Your task to perform on an android device: Open Yahoo.com Image 0: 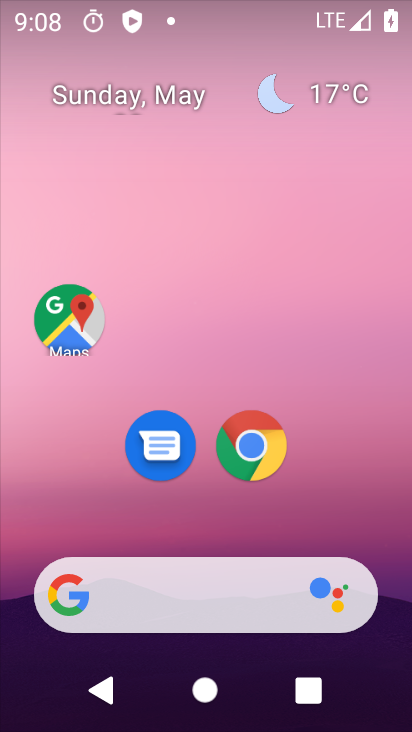
Step 0: drag from (384, 8) to (291, 12)
Your task to perform on an android device: Open Yahoo.com Image 1: 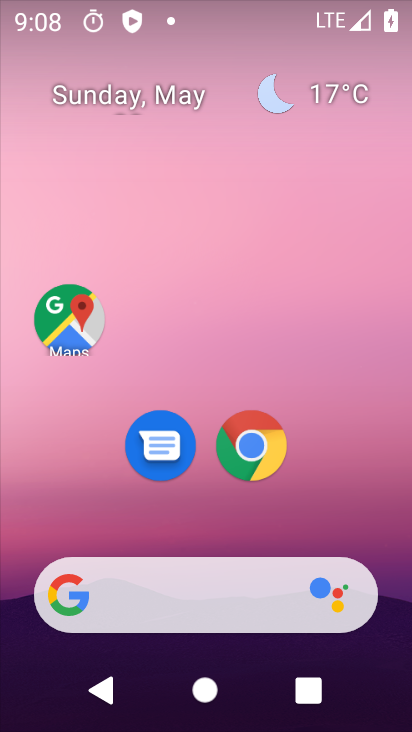
Step 1: drag from (227, 530) to (221, 120)
Your task to perform on an android device: Open Yahoo.com Image 2: 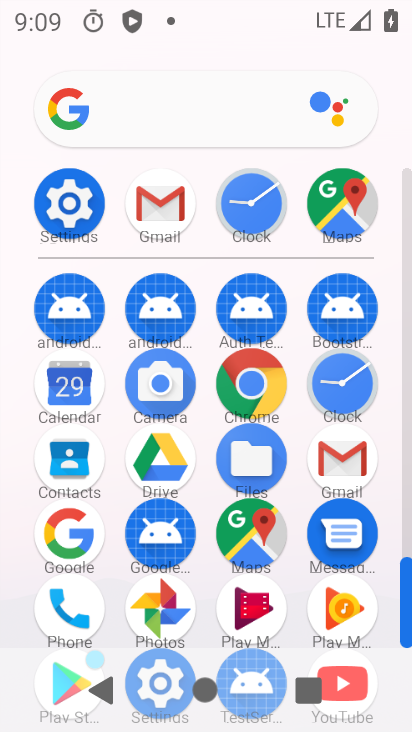
Step 2: click (154, 124)
Your task to perform on an android device: Open Yahoo.com Image 3: 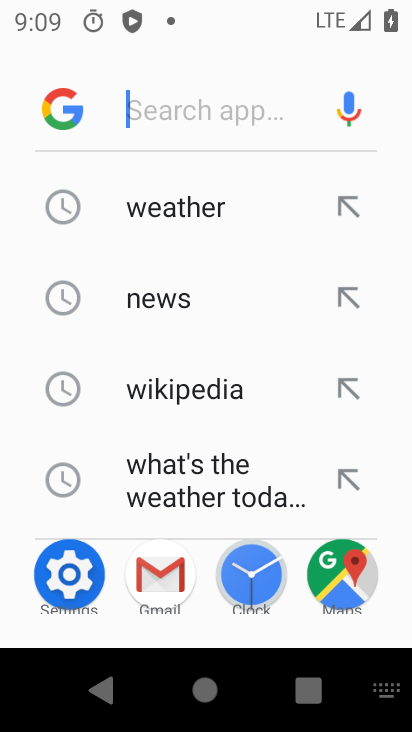
Step 3: type "Yahoo.com"
Your task to perform on an android device: Open Yahoo.com Image 4: 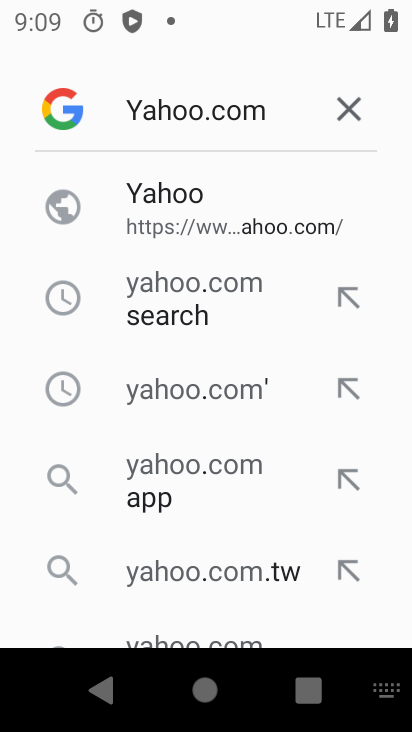
Step 4: click (175, 222)
Your task to perform on an android device: Open Yahoo.com Image 5: 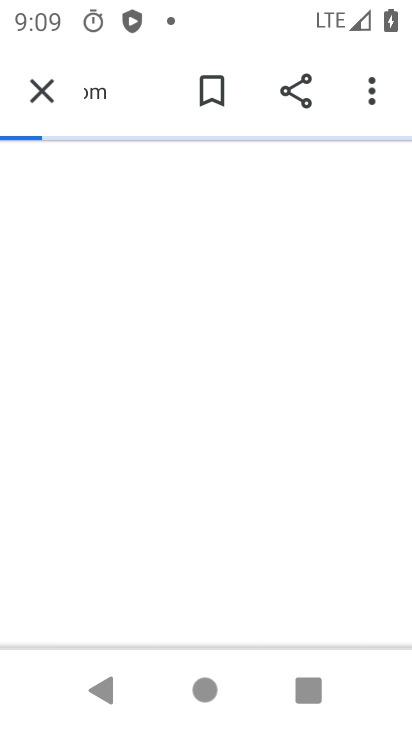
Step 5: task complete